Your task to perform on an android device: Open wifi settings Image 0: 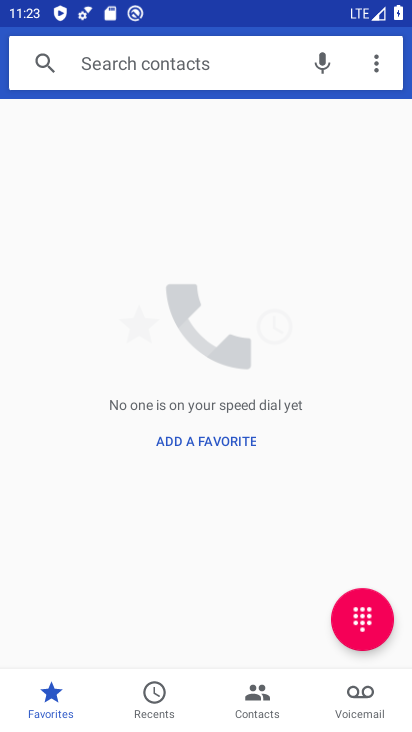
Step 0: press home button
Your task to perform on an android device: Open wifi settings Image 1: 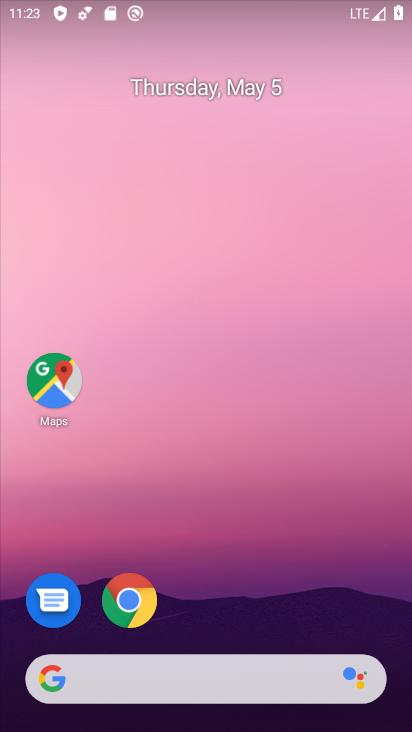
Step 1: drag from (383, 626) to (314, 143)
Your task to perform on an android device: Open wifi settings Image 2: 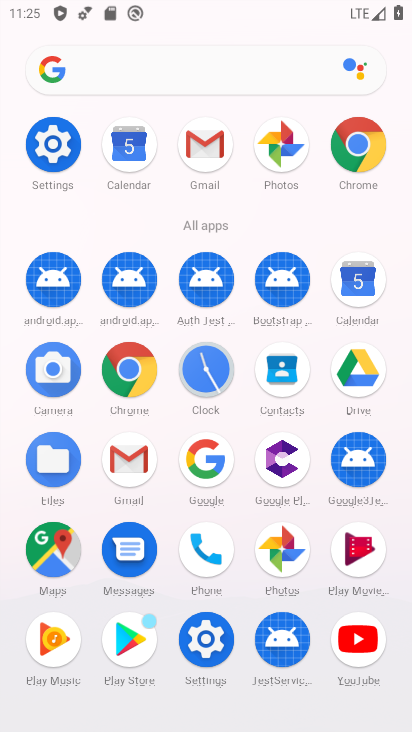
Step 2: click (53, 143)
Your task to perform on an android device: Open wifi settings Image 3: 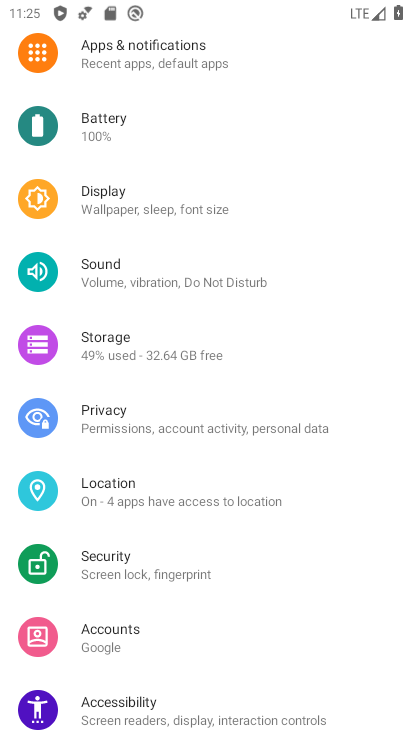
Step 3: drag from (206, 102) to (283, 408)
Your task to perform on an android device: Open wifi settings Image 4: 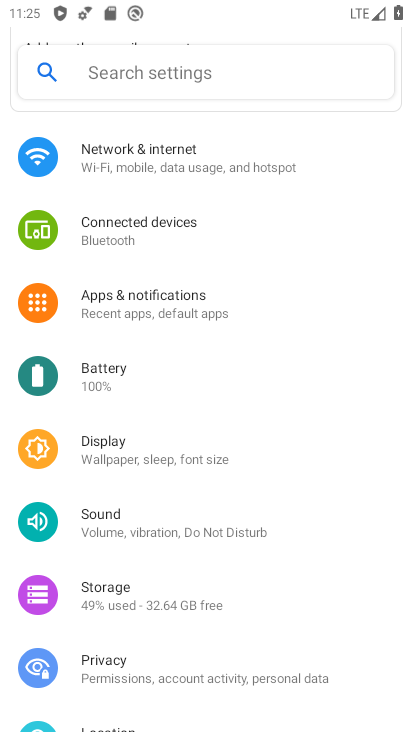
Step 4: drag from (183, 185) to (197, 434)
Your task to perform on an android device: Open wifi settings Image 5: 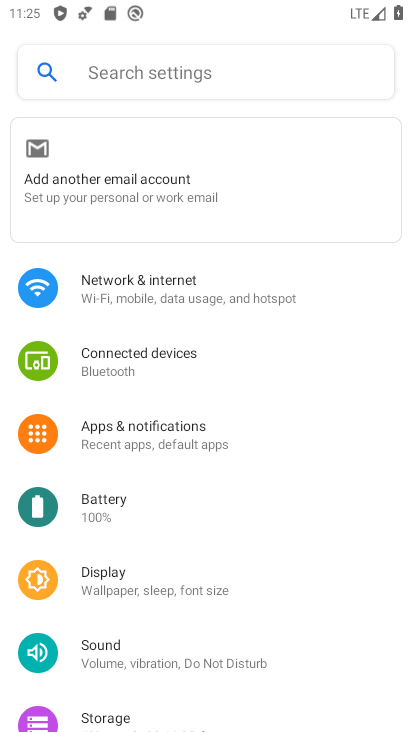
Step 5: click (152, 306)
Your task to perform on an android device: Open wifi settings Image 6: 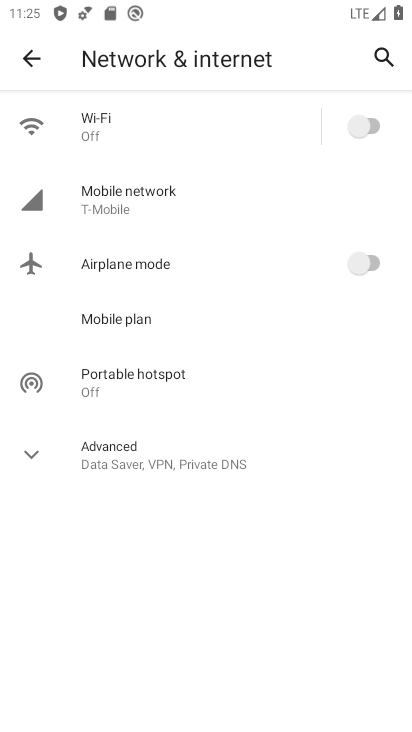
Step 6: click (144, 149)
Your task to perform on an android device: Open wifi settings Image 7: 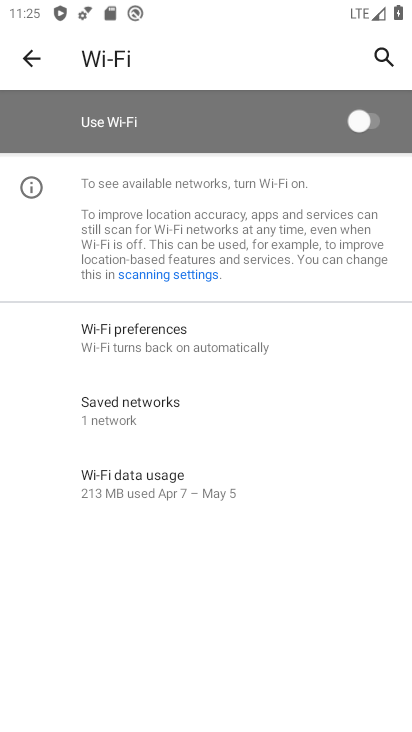
Step 7: task complete